Your task to perform on an android device: snooze an email in the gmail app Image 0: 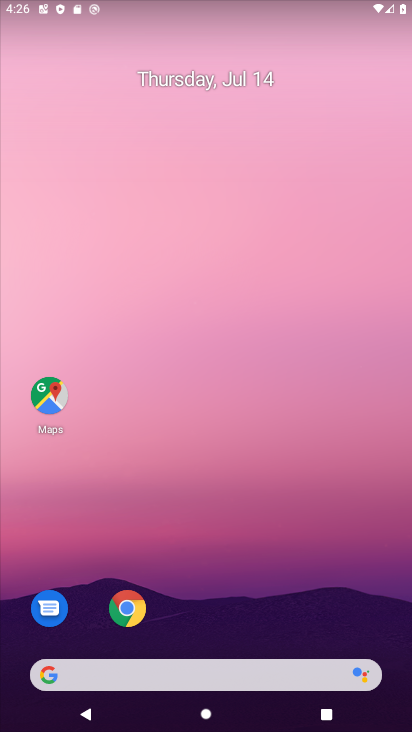
Step 0: drag from (62, 623) to (270, 160)
Your task to perform on an android device: snooze an email in the gmail app Image 1: 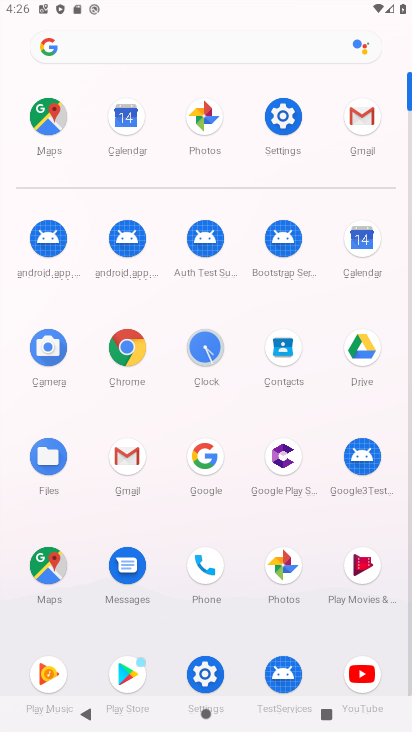
Step 1: click (366, 114)
Your task to perform on an android device: snooze an email in the gmail app Image 2: 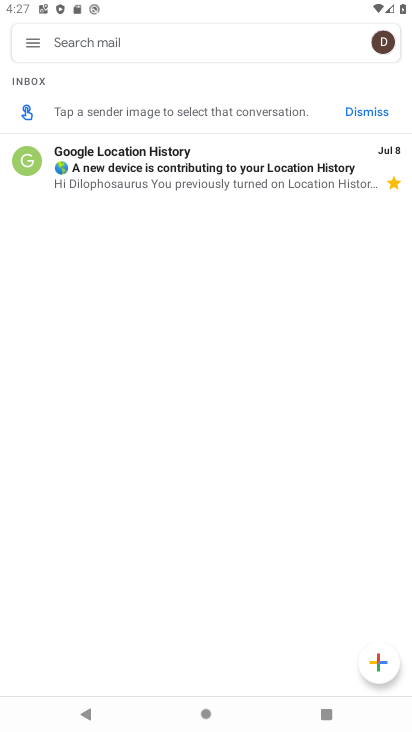
Step 2: click (32, 47)
Your task to perform on an android device: snooze an email in the gmail app Image 3: 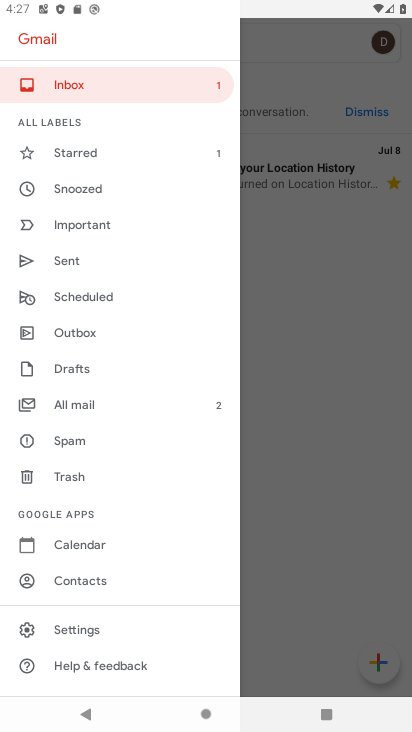
Step 3: click (79, 192)
Your task to perform on an android device: snooze an email in the gmail app Image 4: 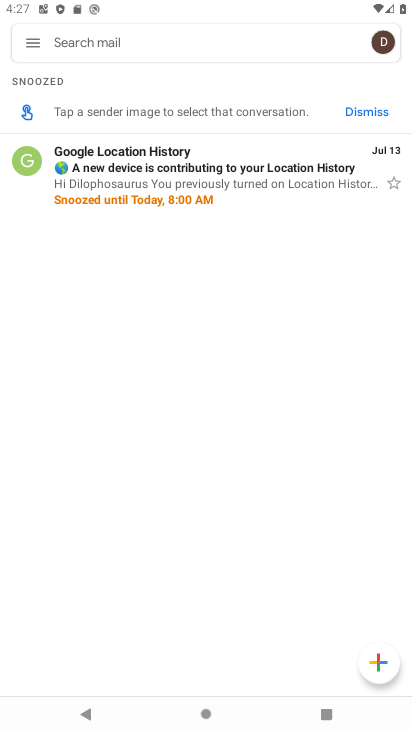
Step 4: click (29, 40)
Your task to perform on an android device: snooze an email in the gmail app Image 5: 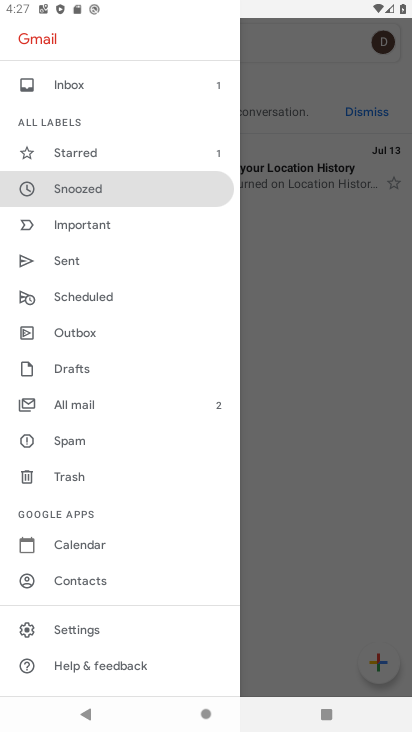
Step 5: click (148, 410)
Your task to perform on an android device: snooze an email in the gmail app Image 6: 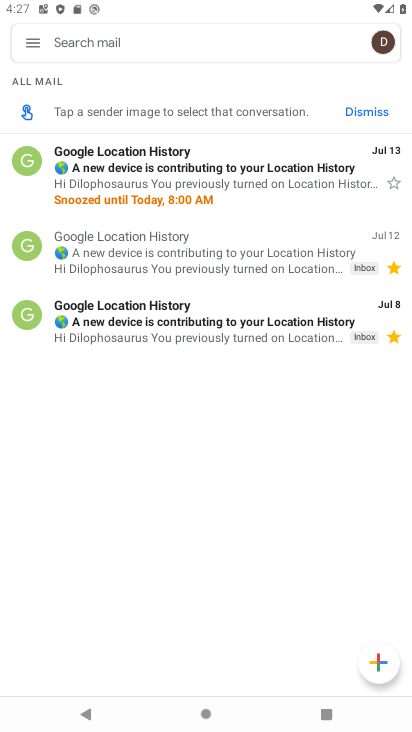
Step 6: click (392, 184)
Your task to perform on an android device: snooze an email in the gmail app Image 7: 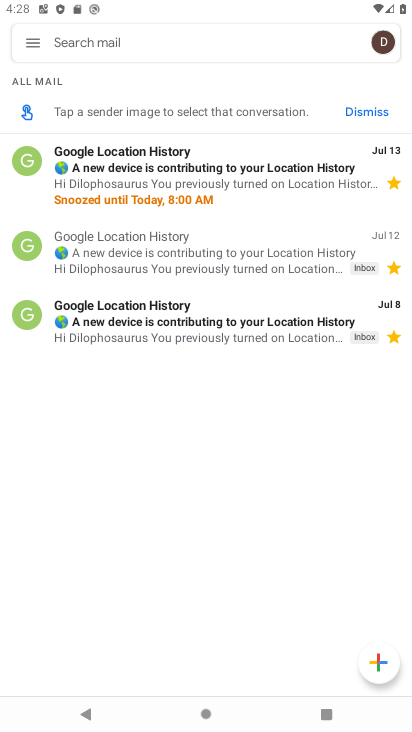
Step 7: click (207, 162)
Your task to perform on an android device: snooze an email in the gmail app Image 8: 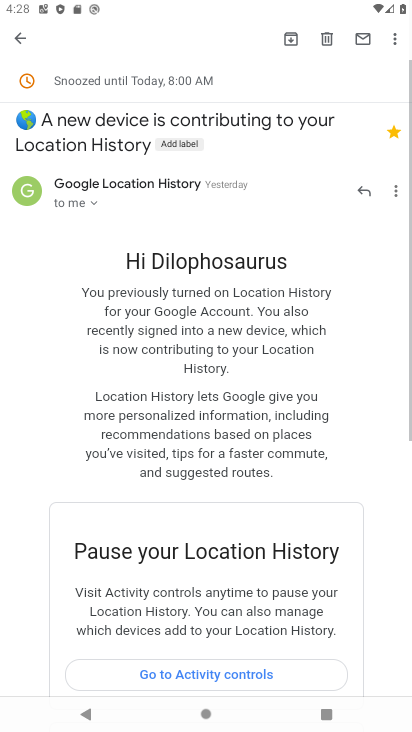
Step 8: click (397, 35)
Your task to perform on an android device: snooze an email in the gmail app Image 9: 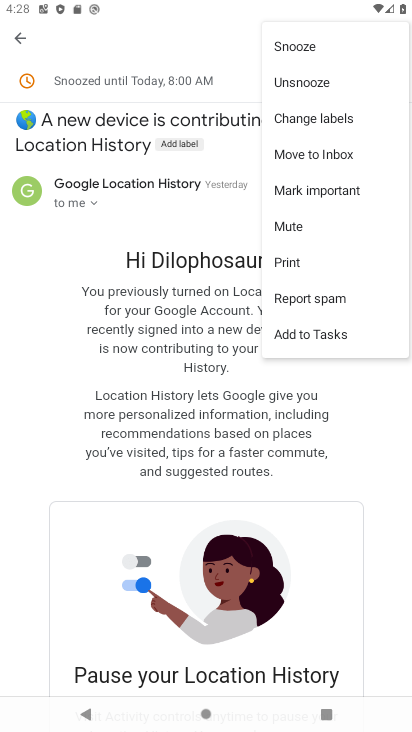
Step 9: task complete